Your task to perform on an android device: Open calendar and show me the third week of next month Image 0: 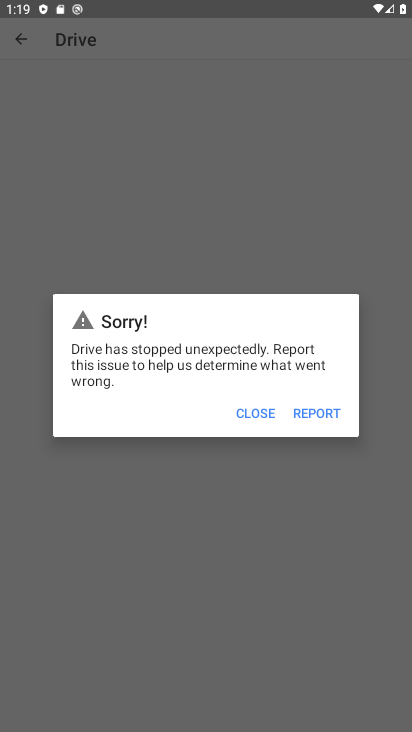
Step 0: press home button
Your task to perform on an android device: Open calendar and show me the third week of next month Image 1: 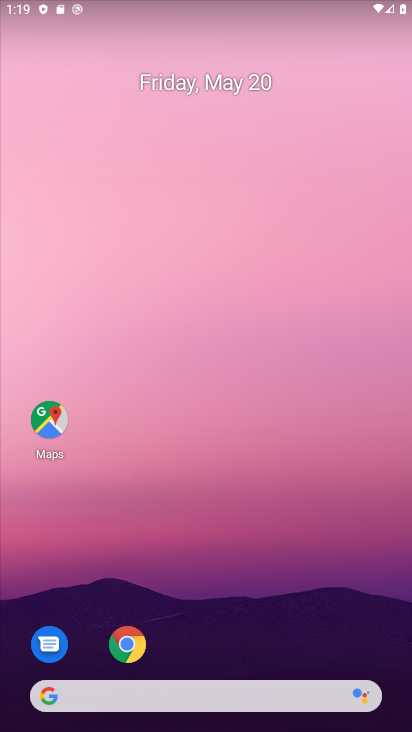
Step 1: click (199, 91)
Your task to perform on an android device: Open calendar and show me the third week of next month Image 2: 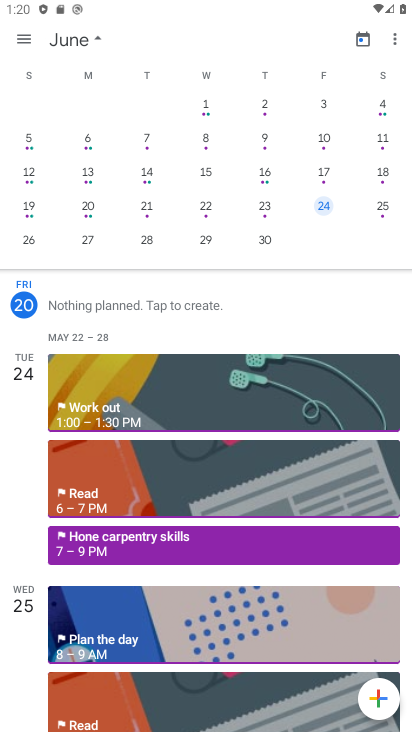
Step 2: click (328, 167)
Your task to perform on an android device: Open calendar and show me the third week of next month Image 3: 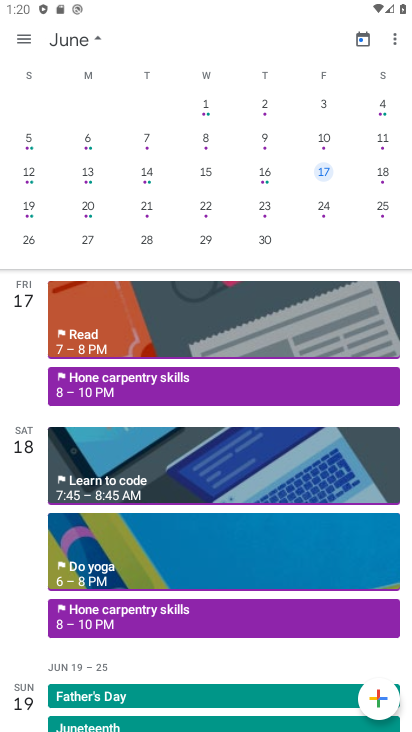
Step 3: task complete